Your task to perform on an android device: Clear the cart on amazon. Add alienware area 51 to the cart on amazon, then select checkout. Image 0: 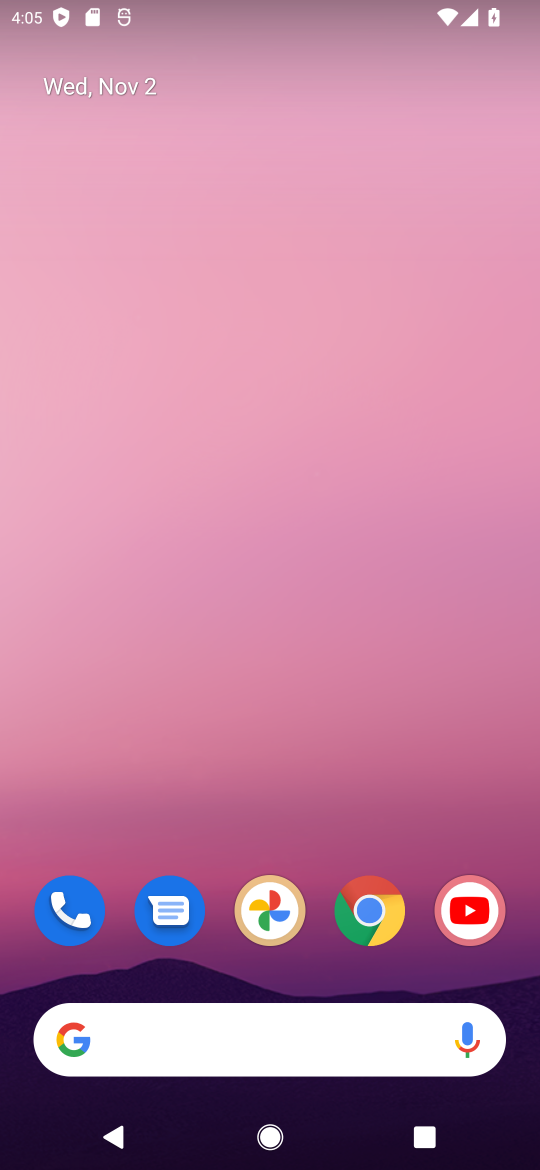
Step 0: click (370, 918)
Your task to perform on an android device: Clear the cart on amazon. Add alienware area 51 to the cart on amazon, then select checkout. Image 1: 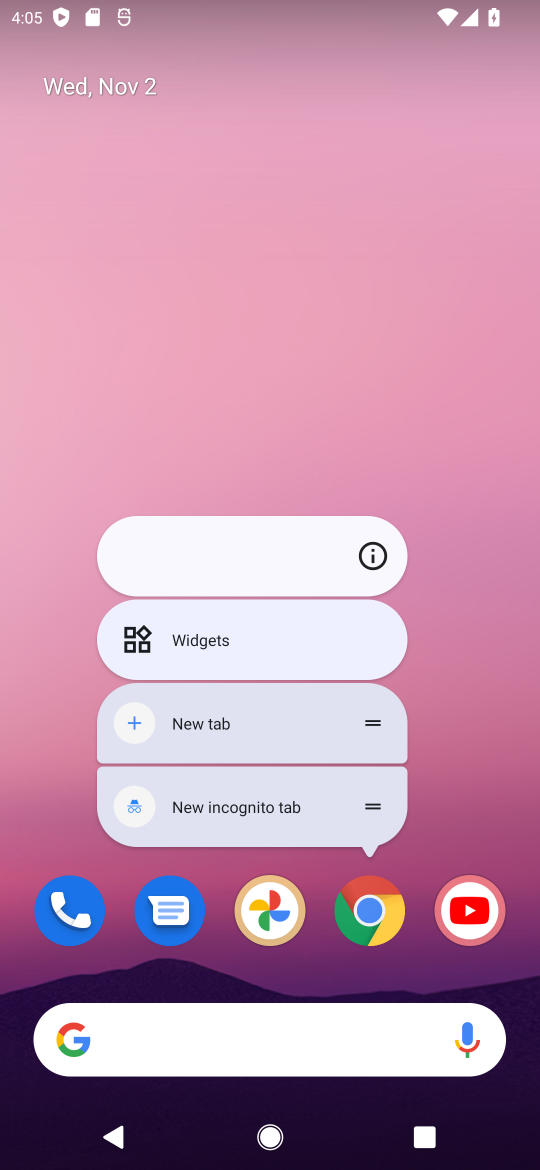
Step 1: click (372, 915)
Your task to perform on an android device: Clear the cart on amazon. Add alienware area 51 to the cart on amazon, then select checkout. Image 2: 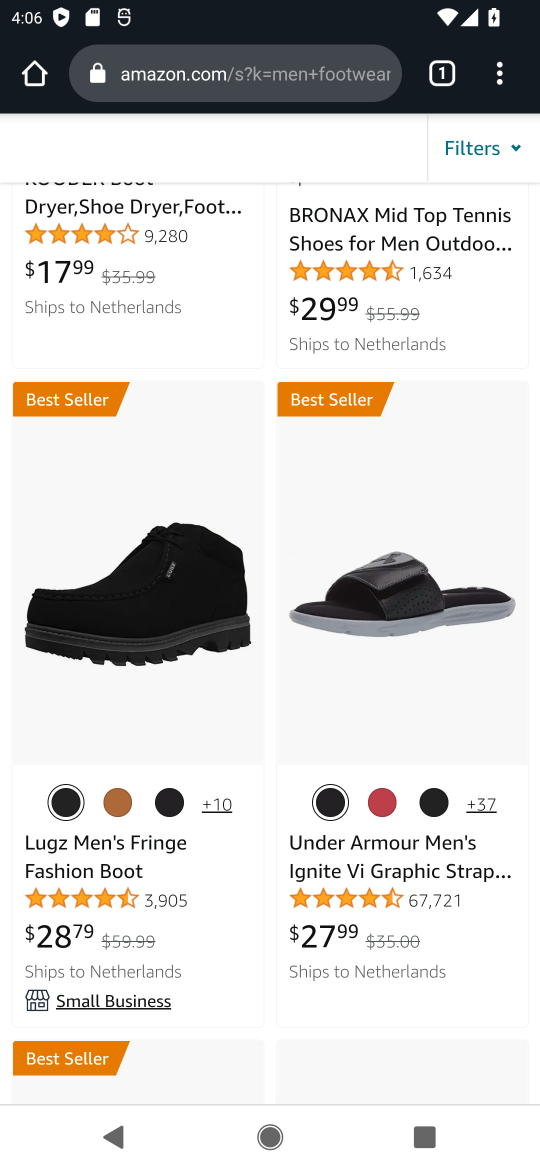
Step 2: drag from (417, 334) to (432, 887)
Your task to perform on an android device: Clear the cart on amazon. Add alienware area 51 to the cart on amazon, then select checkout. Image 3: 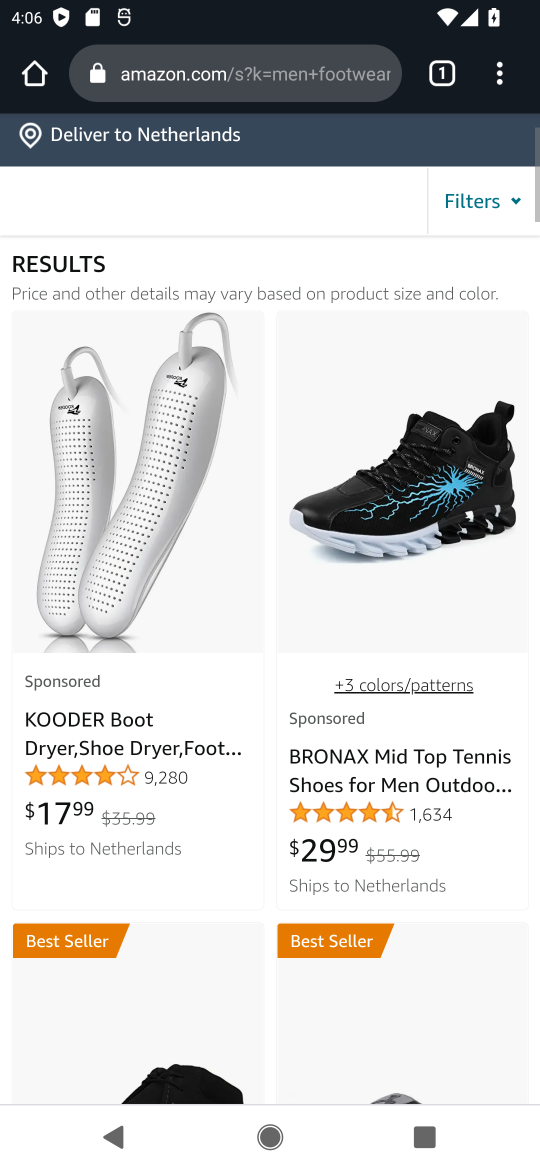
Step 3: drag from (430, 437) to (375, 917)
Your task to perform on an android device: Clear the cart on amazon. Add alienware area 51 to the cart on amazon, then select checkout. Image 4: 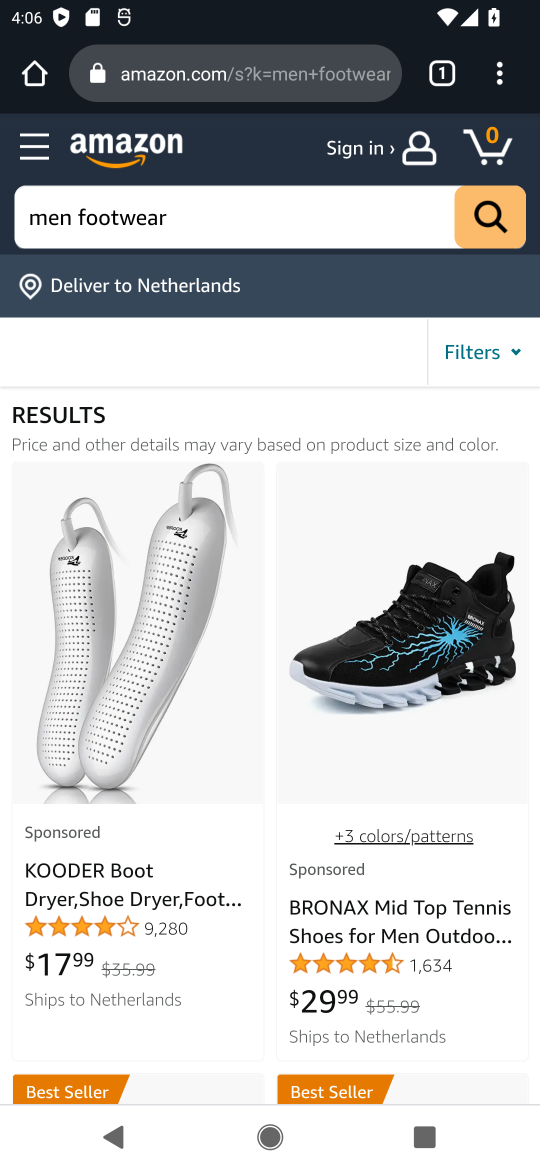
Step 4: click (505, 153)
Your task to perform on an android device: Clear the cart on amazon. Add alienware area 51 to the cart on amazon, then select checkout. Image 5: 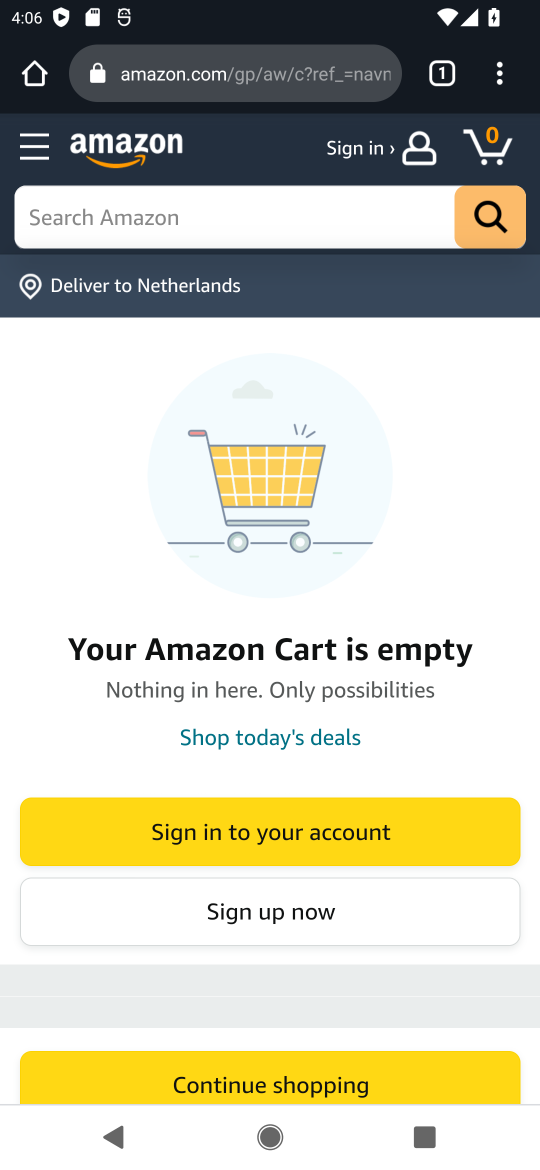
Step 5: click (250, 230)
Your task to perform on an android device: Clear the cart on amazon. Add alienware area 51 to the cart on amazon, then select checkout. Image 6: 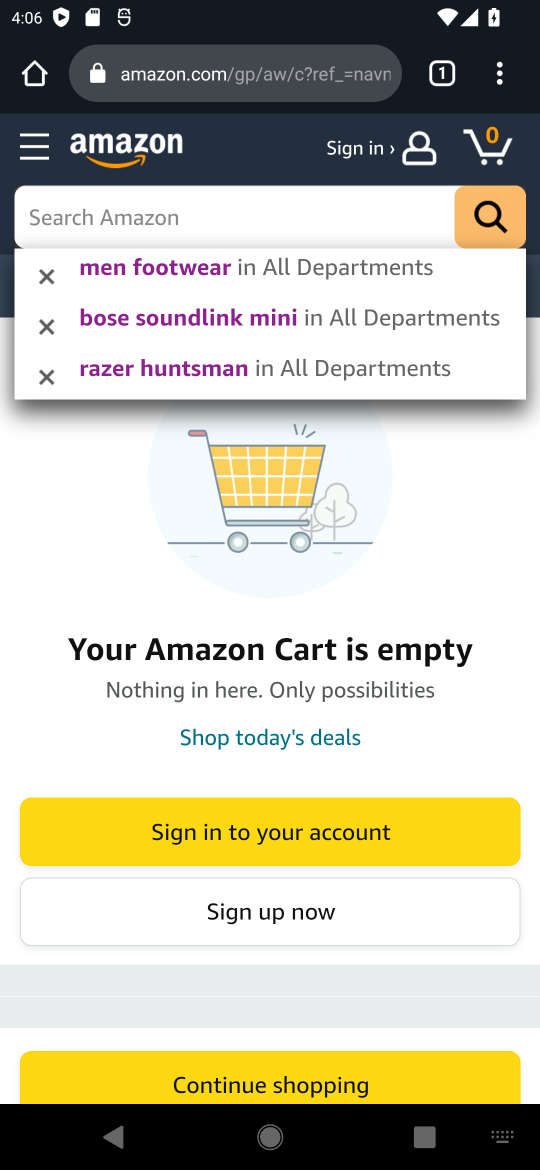
Step 6: type "alienware area 51"
Your task to perform on an android device: Clear the cart on amazon. Add alienware area 51 to the cart on amazon, then select checkout. Image 7: 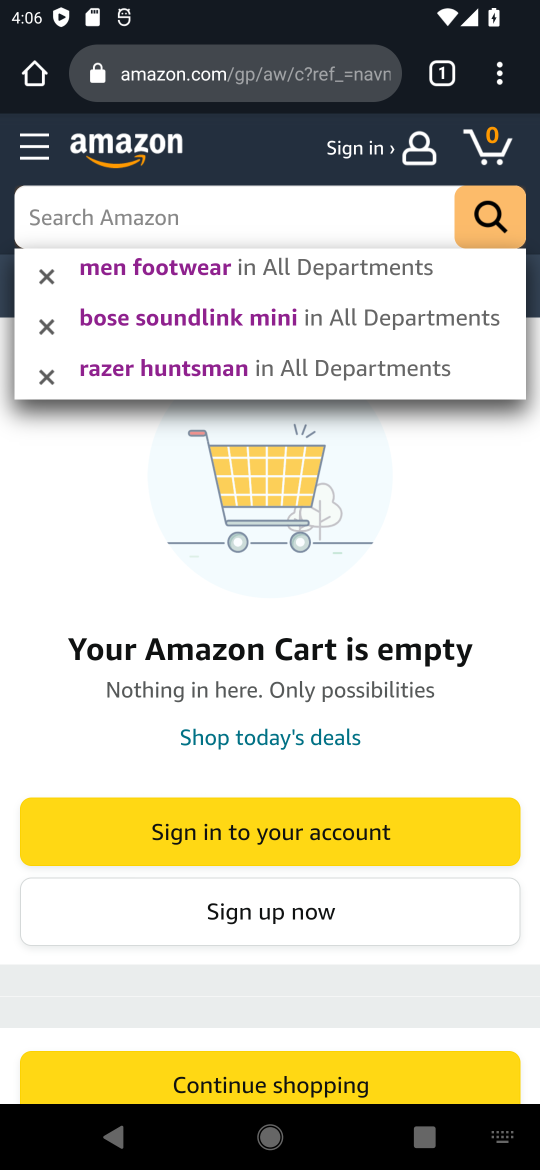
Step 7: type ""
Your task to perform on an android device: Clear the cart on amazon. Add alienware area 51 to the cart on amazon, then select checkout. Image 8: 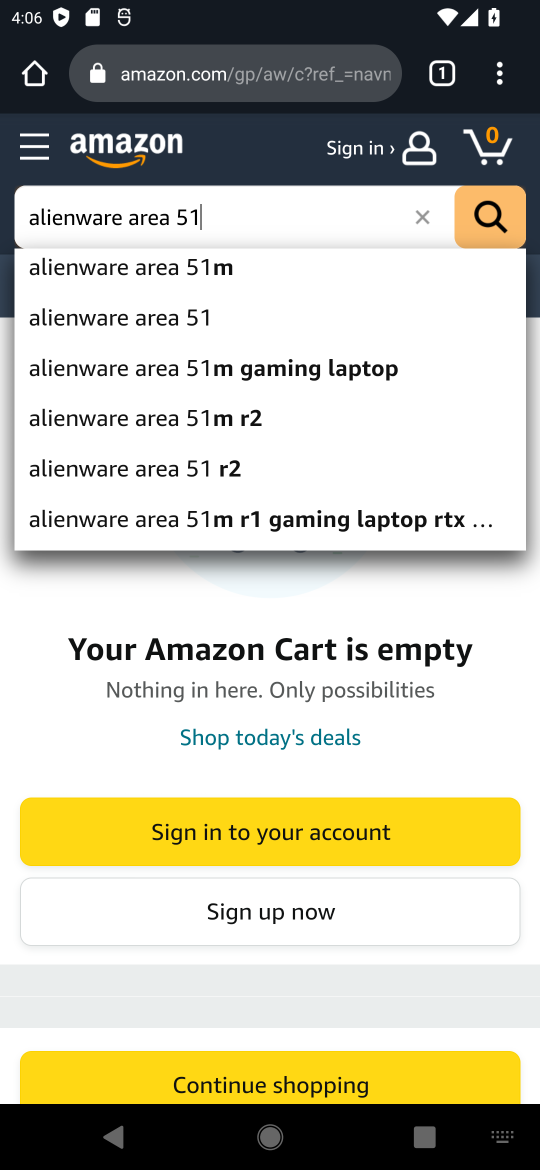
Step 8: click (242, 385)
Your task to perform on an android device: Clear the cart on amazon. Add alienware area 51 to the cart on amazon, then select checkout. Image 9: 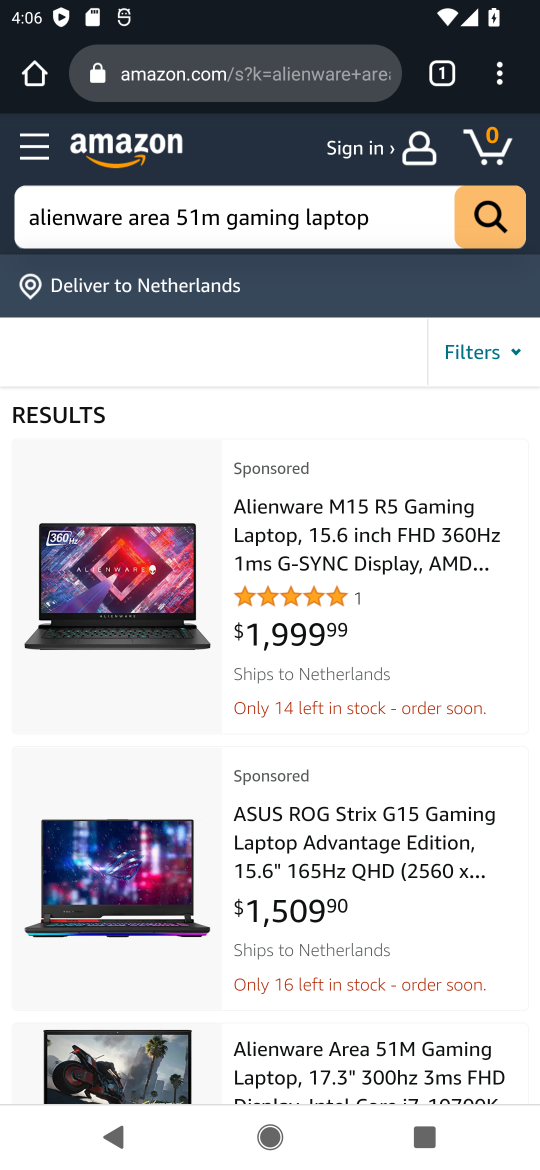
Step 9: click (379, 1070)
Your task to perform on an android device: Clear the cart on amazon. Add alienware area 51 to the cart on amazon, then select checkout. Image 10: 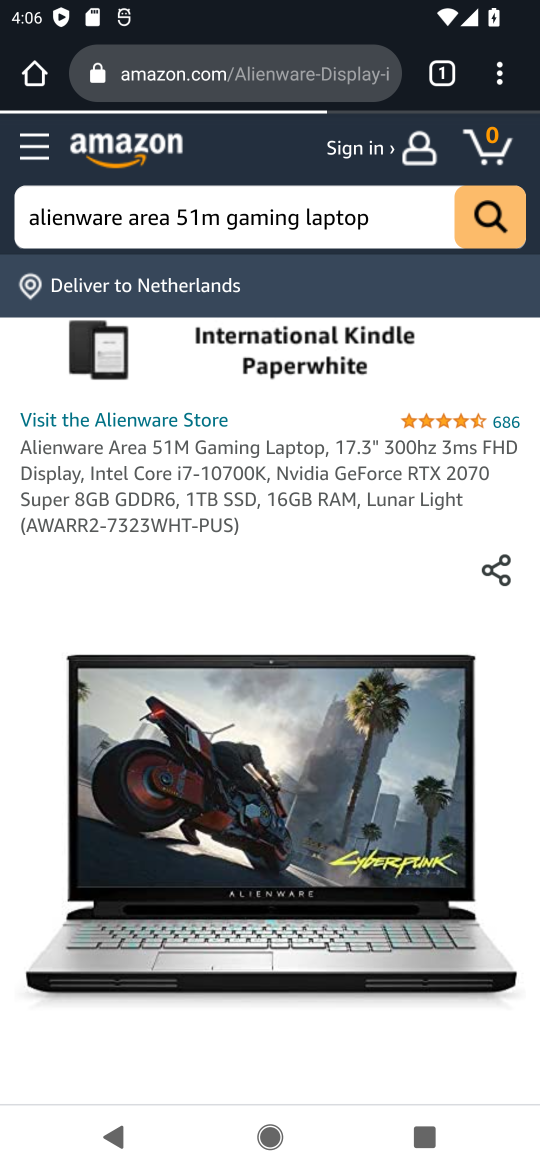
Step 10: drag from (378, 988) to (426, 411)
Your task to perform on an android device: Clear the cart on amazon. Add alienware area 51 to the cart on amazon, then select checkout. Image 11: 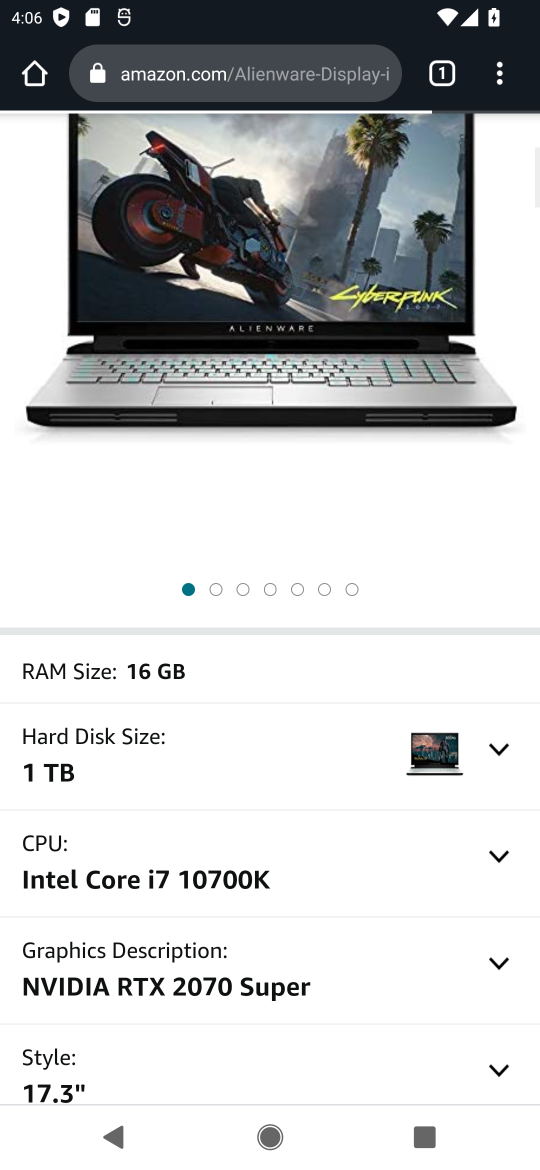
Step 11: drag from (413, 823) to (416, 475)
Your task to perform on an android device: Clear the cart on amazon. Add alienware area 51 to the cart on amazon, then select checkout. Image 12: 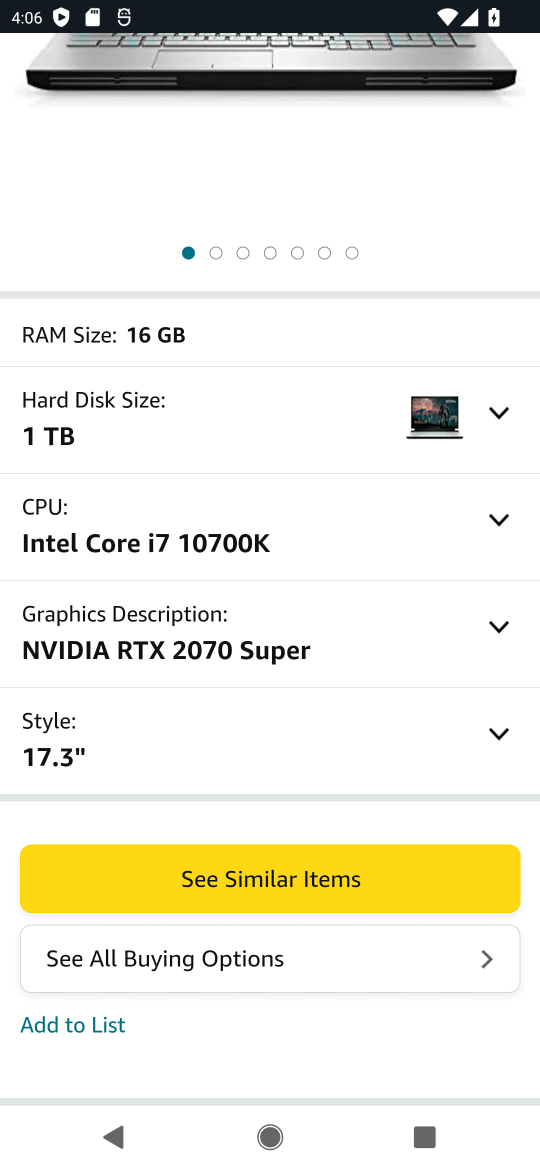
Step 12: click (309, 977)
Your task to perform on an android device: Clear the cart on amazon. Add alienware area 51 to the cart on amazon, then select checkout. Image 13: 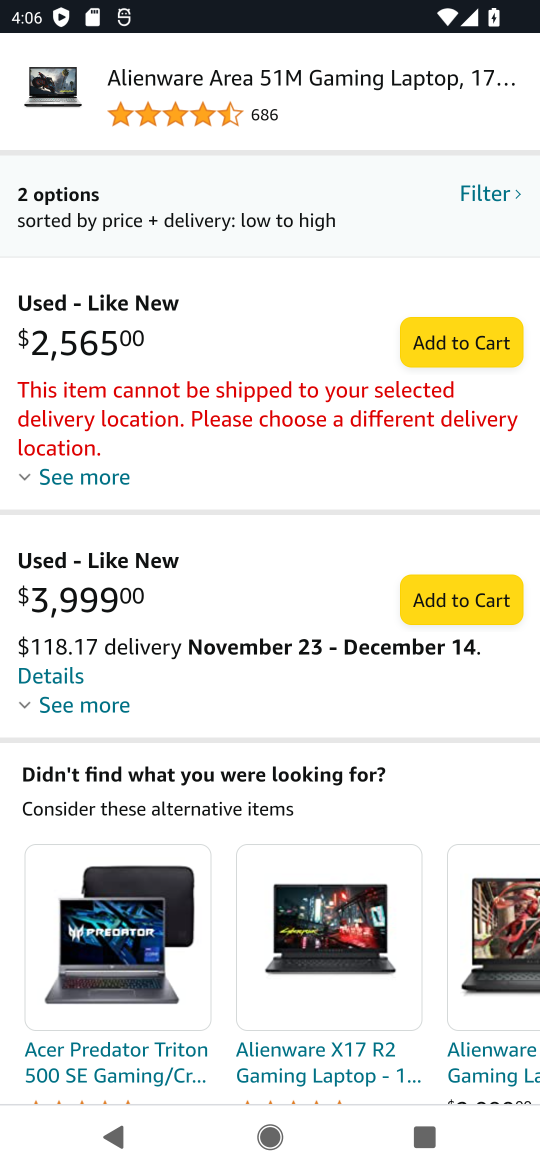
Step 13: click (403, 333)
Your task to perform on an android device: Clear the cart on amazon. Add alienware area 51 to the cart on amazon, then select checkout. Image 14: 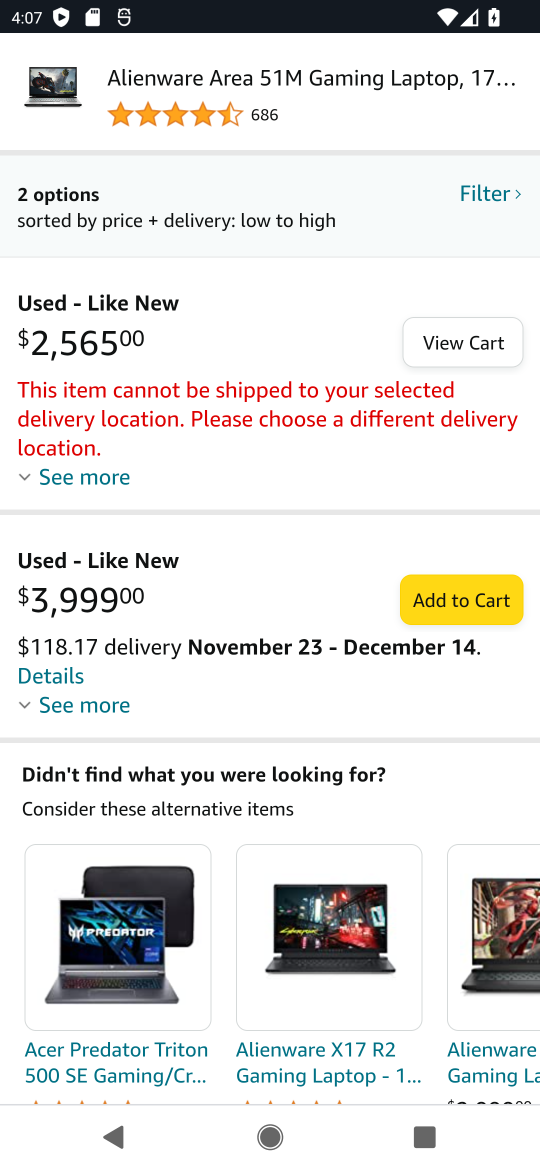
Step 14: task complete